Your task to perform on an android device: Search for seafood restaurants on Google Maps Image 0: 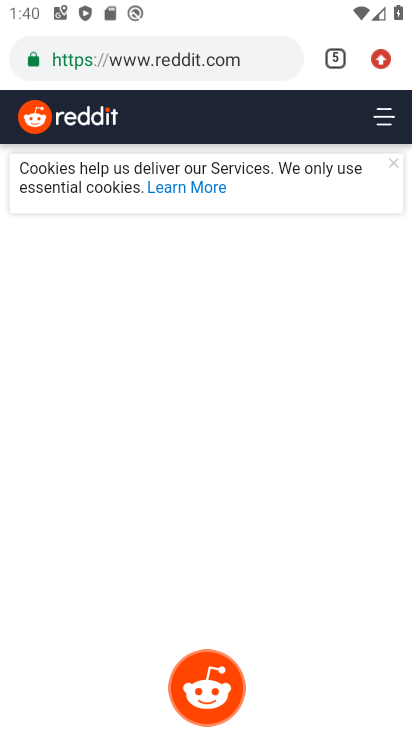
Step 0: press home button
Your task to perform on an android device: Search for seafood restaurants on Google Maps Image 1: 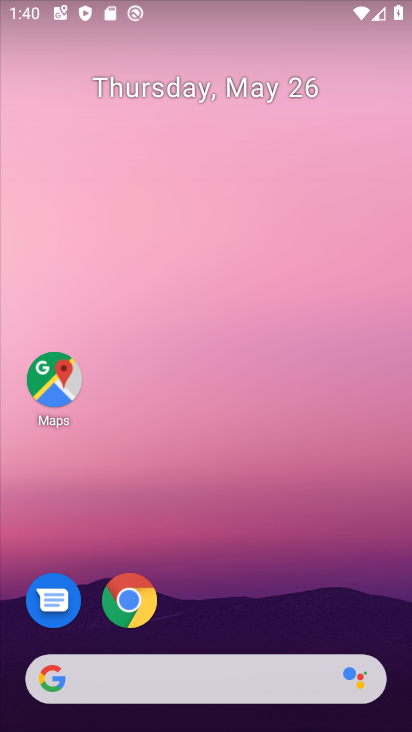
Step 1: click (63, 387)
Your task to perform on an android device: Search for seafood restaurants on Google Maps Image 2: 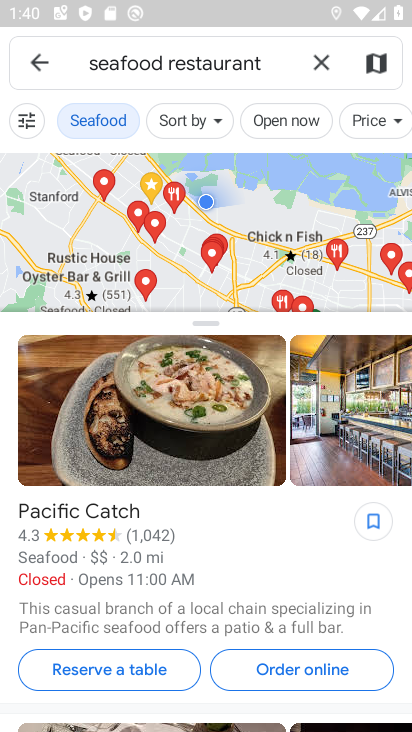
Step 2: task complete